Your task to perform on an android device: clear all cookies in the chrome app Image 0: 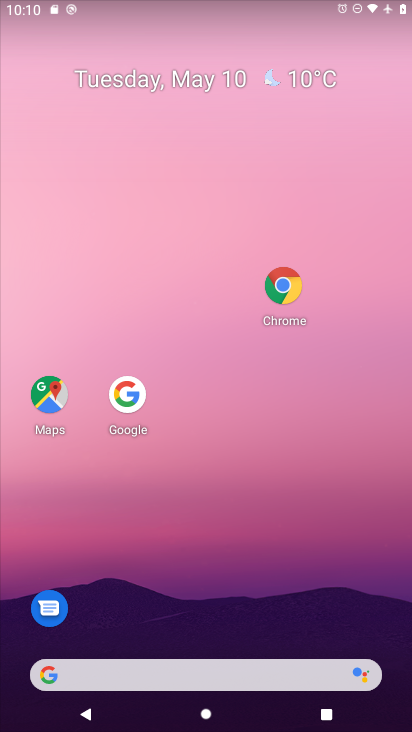
Step 0: drag from (149, 677) to (265, 260)
Your task to perform on an android device: clear all cookies in the chrome app Image 1: 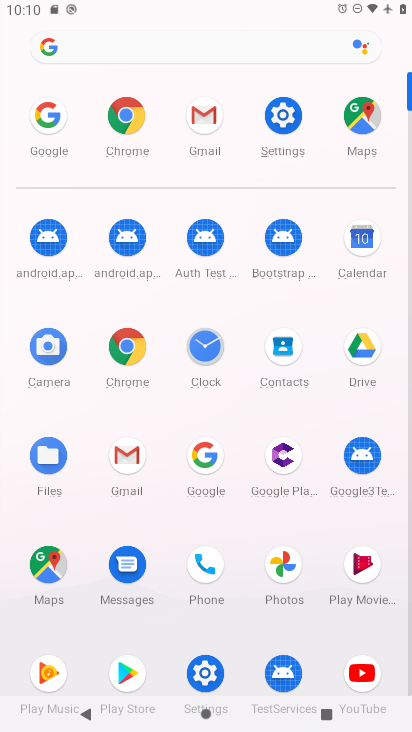
Step 1: click (132, 125)
Your task to perform on an android device: clear all cookies in the chrome app Image 2: 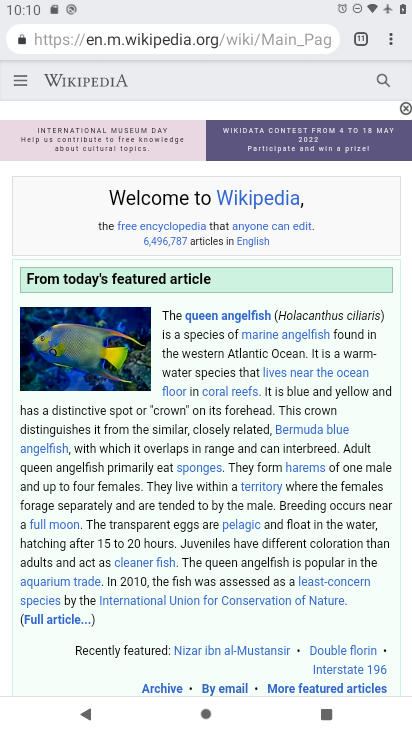
Step 2: drag from (390, 43) to (273, 473)
Your task to perform on an android device: clear all cookies in the chrome app Image 3: 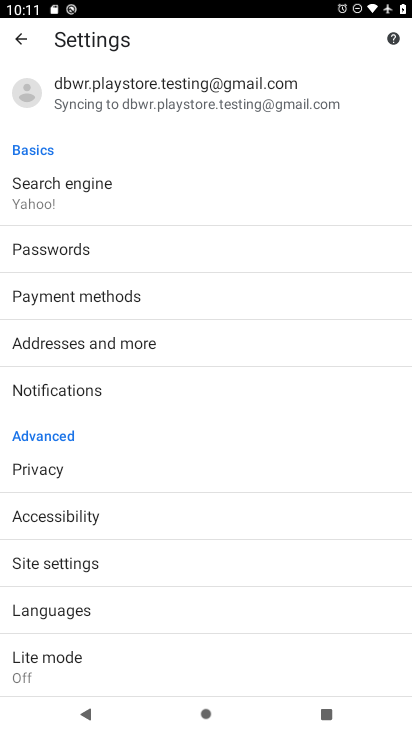
Step 3: click (61, 469)
Your task to perform on an android device: clear all cookies in the chrome app Image 4: 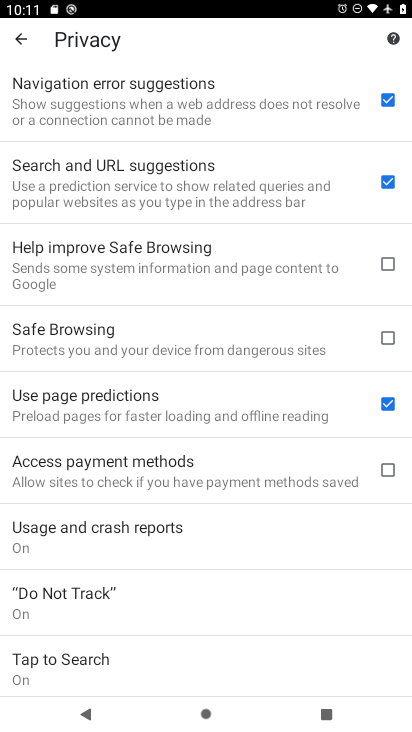
Step 4: drag from (201, 631) to (291, 257)
Your task to perform on an android device: clear all cookies in the chrome app Image 5: 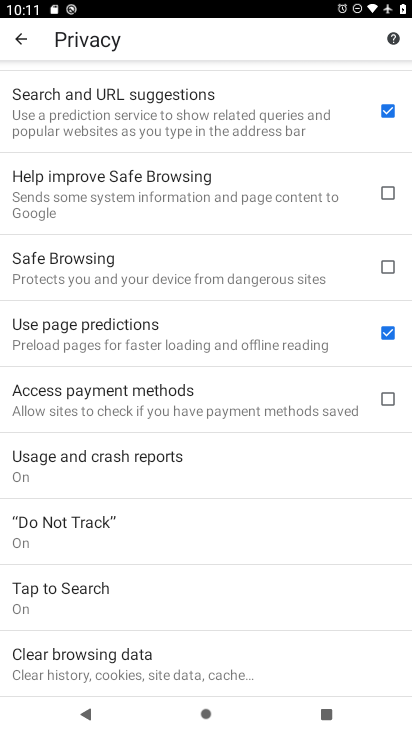
Step 5: click (122, 674)
Your task to perform on an android device: clear all cookies in the chrome app Image 6: 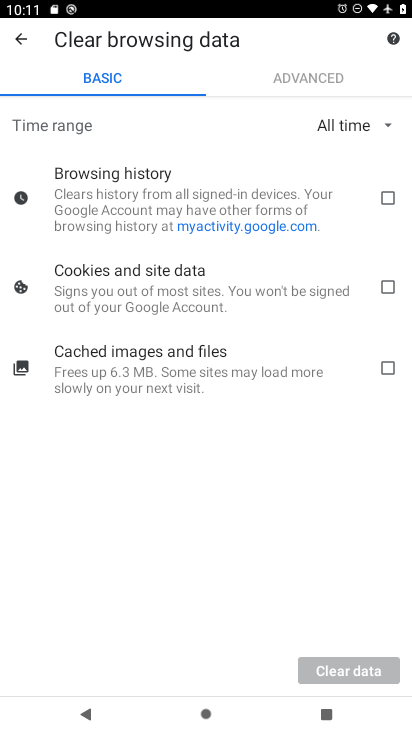
Step 6: click (385, 283)
Your task to perform on an android device: clear all cookies in the chrome app Image 7: 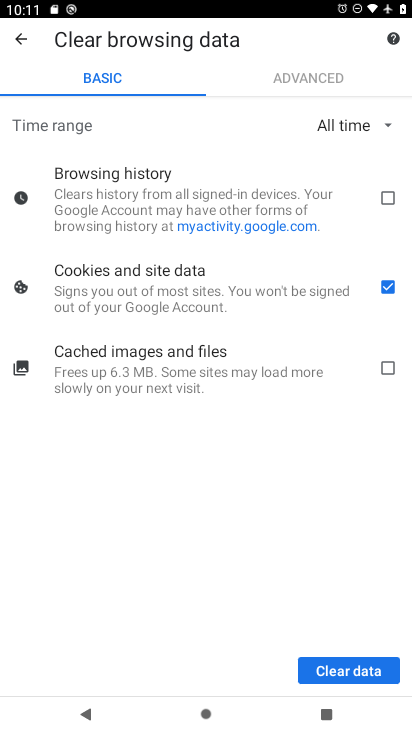
Step 7: click (347, 670)
Your task to perform on an android device: clear all cookies in the chrome app Image 8: 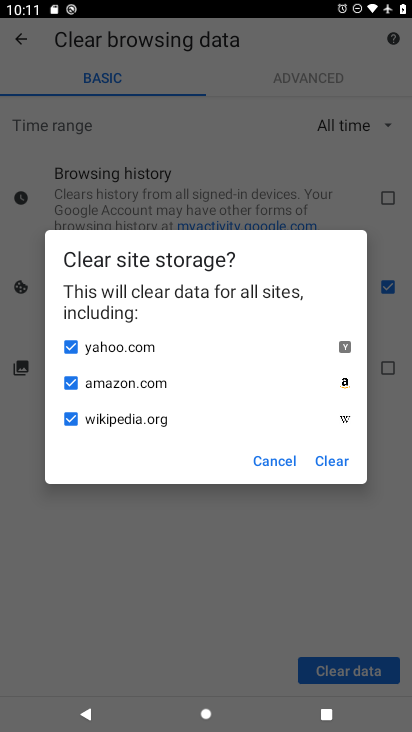
Step 8: click (325, 455)
Your task to perform on an android device: clear all cookies in the chrome app Image 9: 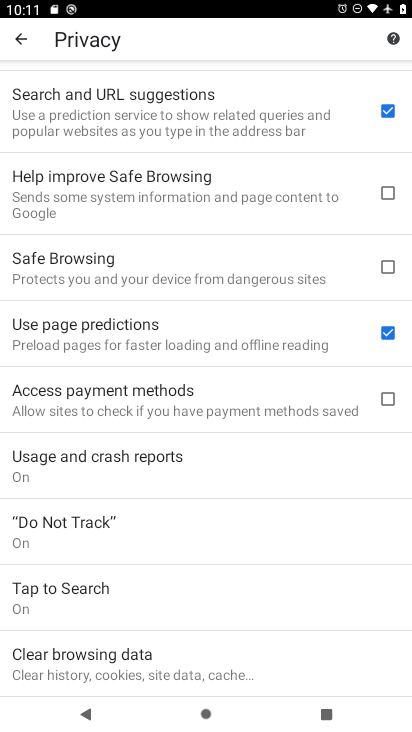
Step 9: task complete